Your task to perform on an android device: delete the emails in spam in the gmail app Image 0: 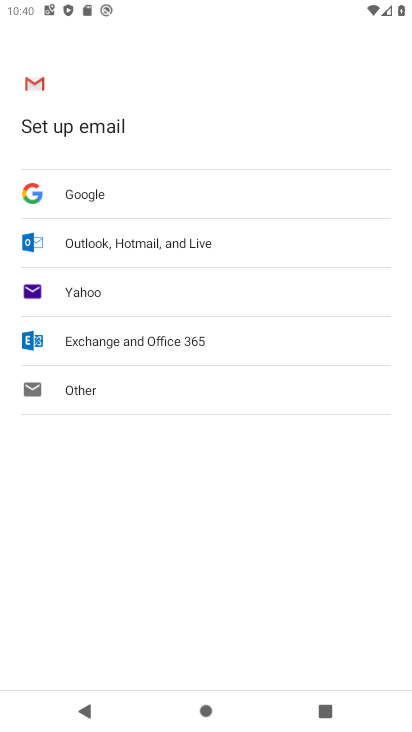
Step 0: press home button
Your task to perform on an android device: delete the emails in spam in the gmail app Image 1: 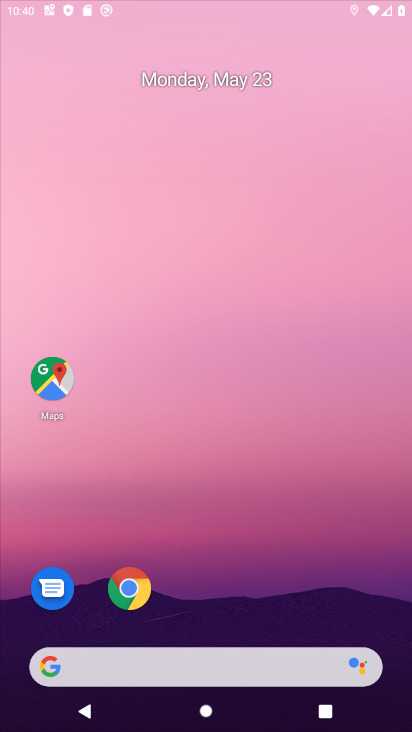
Step 1: drag from (278, 524) to (231, 0)
Your task to perform on an android device: delete the emails in spam in the gmail app Image 2: 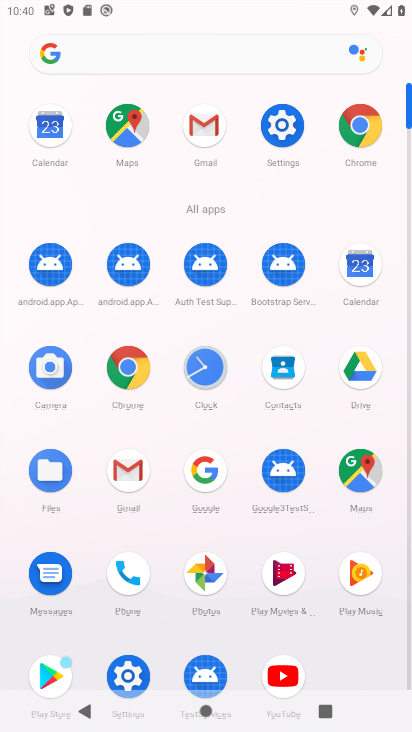
Step 2: click (208, 208)
Your task to perform on an android device: delete the emails in spam in the gmail app Image 3: 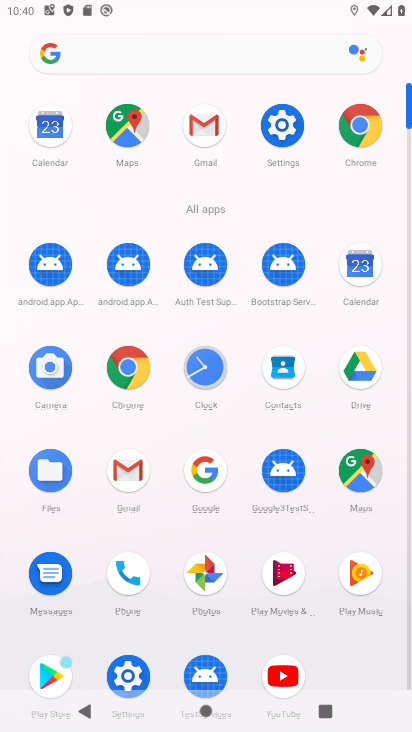
Step 3: click (209, 155)
Your task to perform on an android device: delete the emails in spam in the gmail app Image 4: 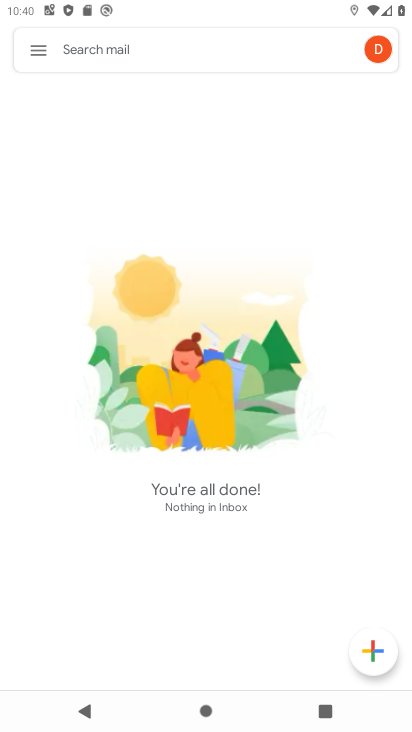
Step 4: click (19, 48)
Your task to perform on an android device: delete the emails in spam in the gmail app Image 5: 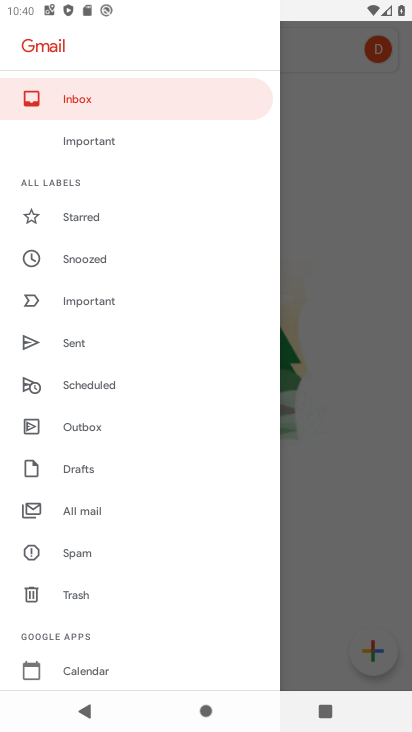
Step 5: click (82, 551)
Your task to perform on an android device: delete the emails in spam in the gmail app Image 6: 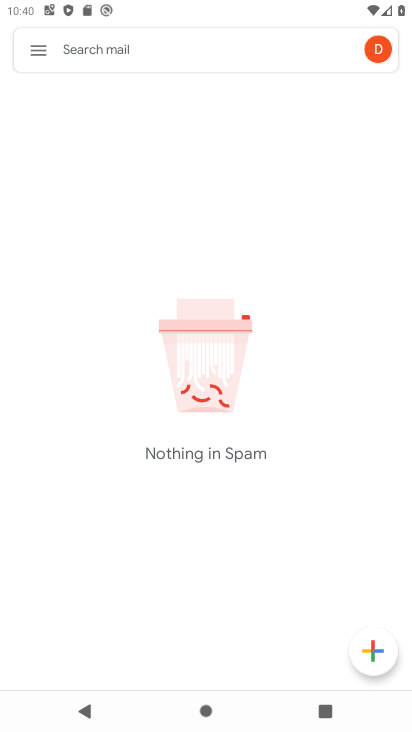
Step 6: task complete